Your task to perform on an android device: delete the emails in spam in the gmail app Image 0: 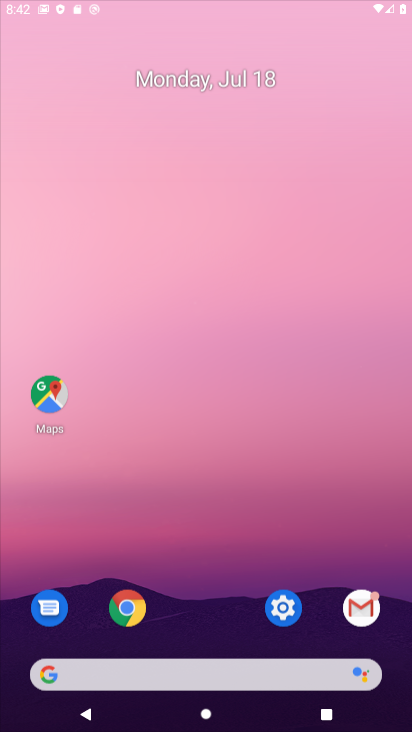
Step 0: click (289, 594)
Your task to perform on an android device: delete the emails in spam in the gmail app Image 1: 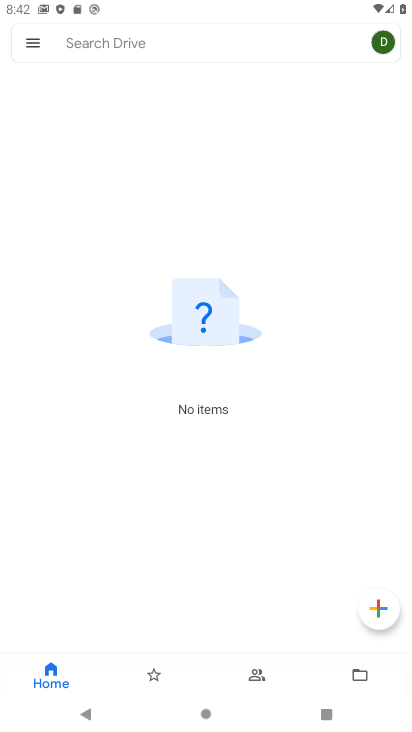
Step 1: press home button
Your task to perform on an android device: delete the emails in spam in the gmail app Image 2: 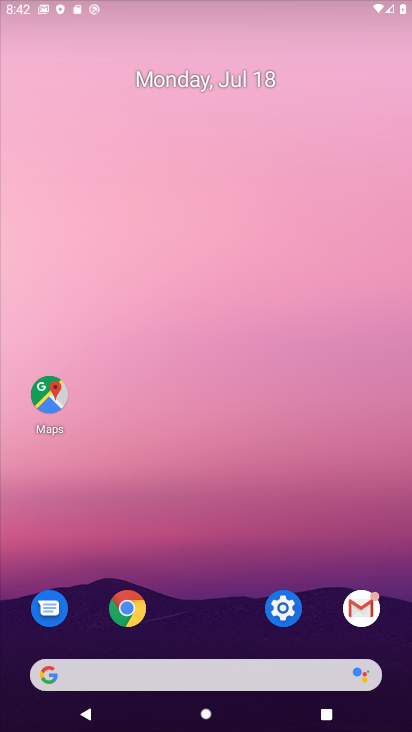
Step 2: click (297, 603)
Your task to perform on an android device: delete the emails in spam in the gmail app Image 3: 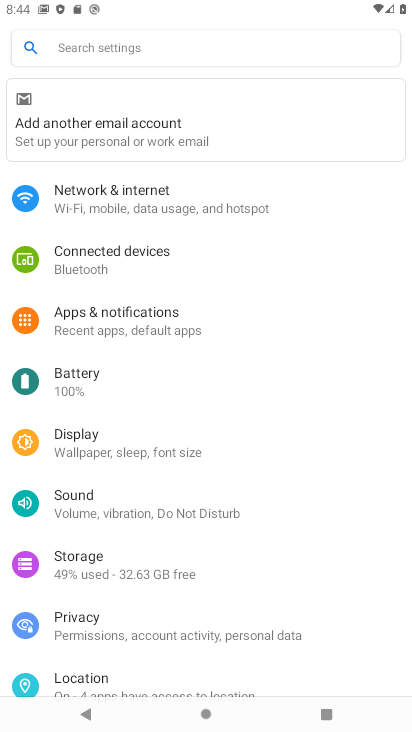
Step 3: press home button
Your task to perform on an android device: delete the emails in spam in the gmail app Image 4: 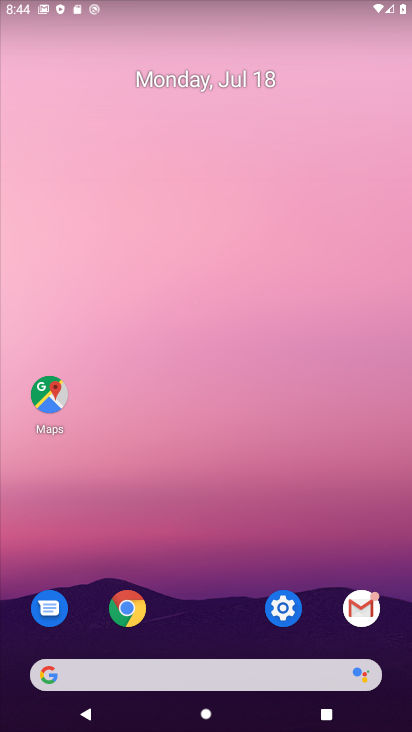
Step 4: click (360, 608)
Your task to perform on an android device: delete the emails in spam in the gmail app Image 5: 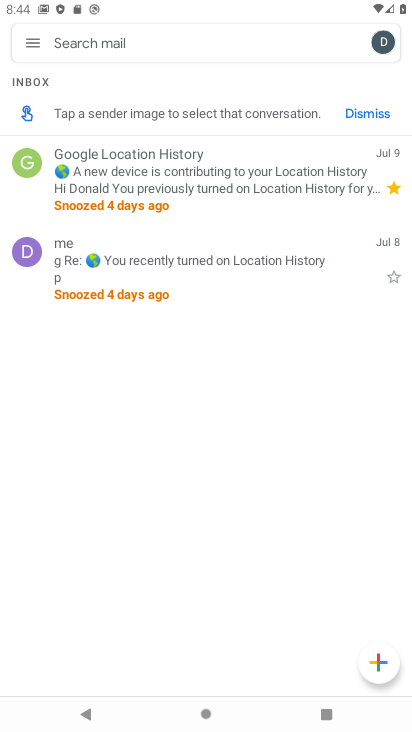
Step 5: click (35, 48)
Your task to perform on an android device: delete the emails in spam in the gmail app Image 6: 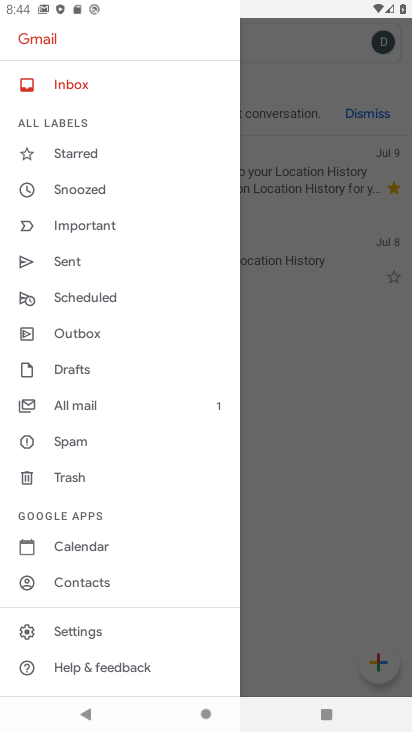
Step 6: click (80, 438)
Your task to perform on an android device: delete the emails in spam in the gmail app Image 7: 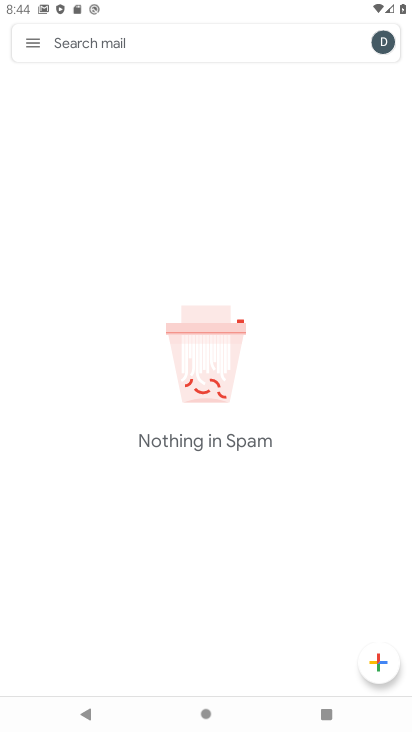
Step 7: task complete